Your task to perform on an android device: What's on my calendar tomorrow? Image 0: 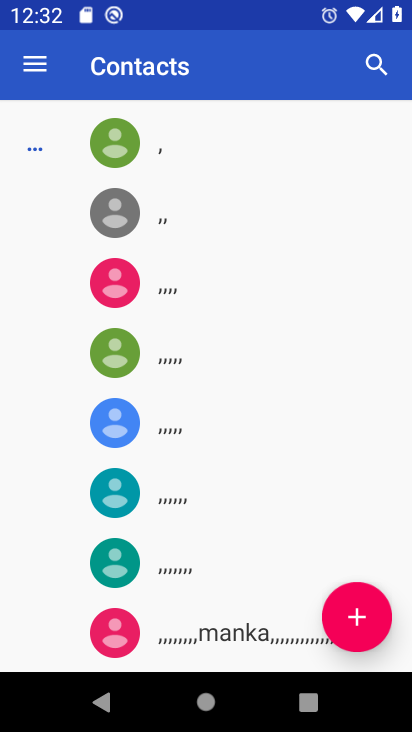
Step 0: press home button
Your task to perform on an android device: What's on my calendar tomorrow? Image 1: 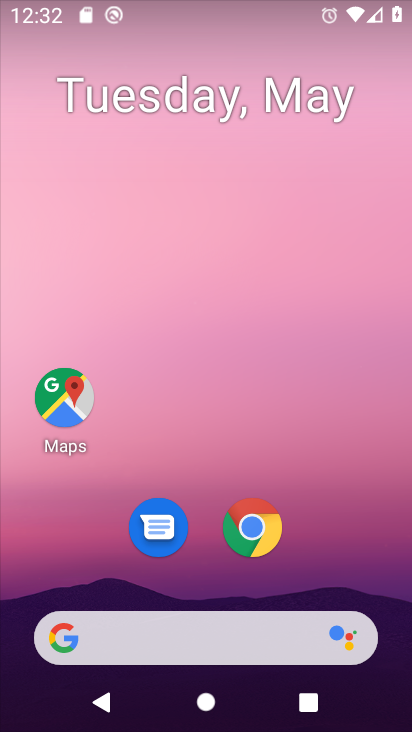
Step 1: drag from (265, 699) to (314, 104)
Your task to perform on an android device: What's on my calendar tomorrow? Image 2: 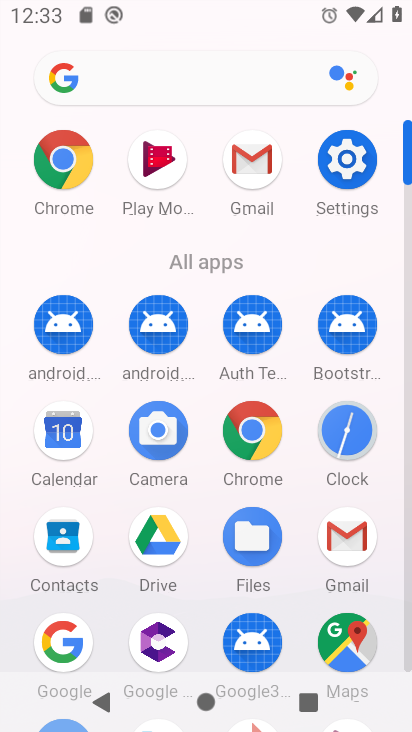
Step 2: click (60, 445)
Your task to perform on an android device: What's on my calendar tomorrow? Image 3: 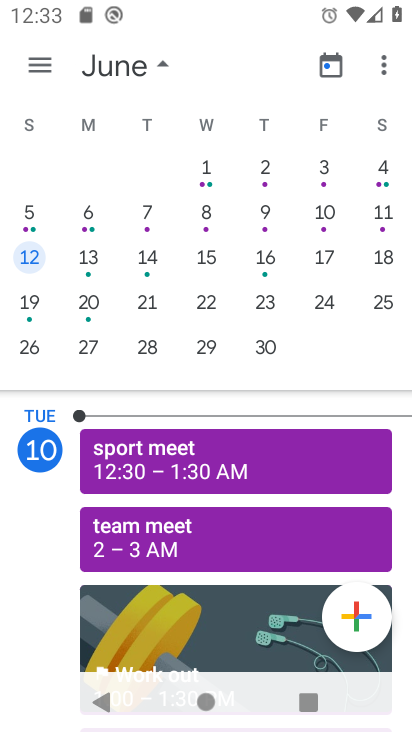
Step 3: drag from (80, 253) to (381, 269)
Your task to perform on an android device: What's on my calendar tomorrow? Image 4: 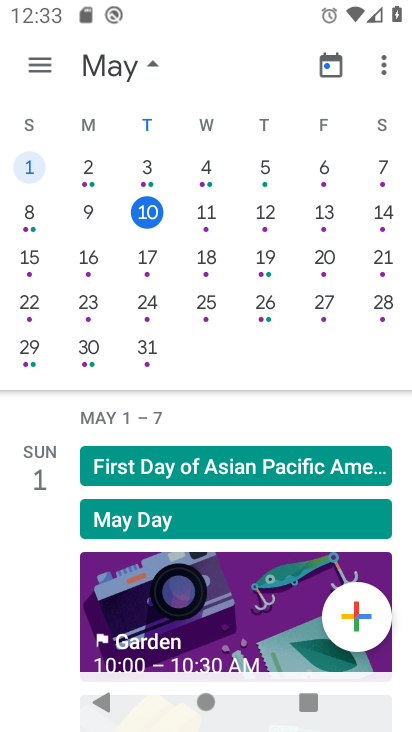
Step 4: click (207, 209)
Your task to perform on an android device: What's on my calendar tomorrow? Image 5: 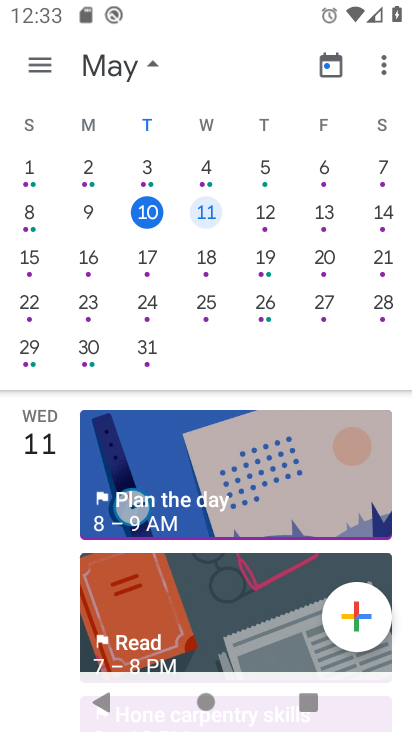
Step 5: task complete